Your task to perform on an android device: read, delete, or share a saved page in the chrome app Image 0: 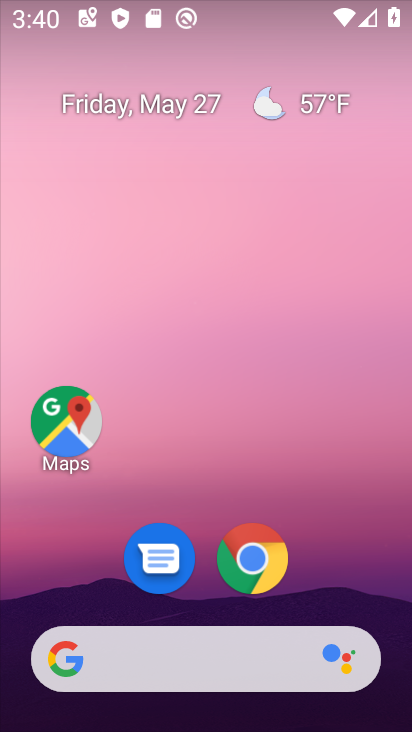
Step 0: click (259, 573)
Your task to perform on an android device: read, delete, or share a saved page in the chrome app Image 1: 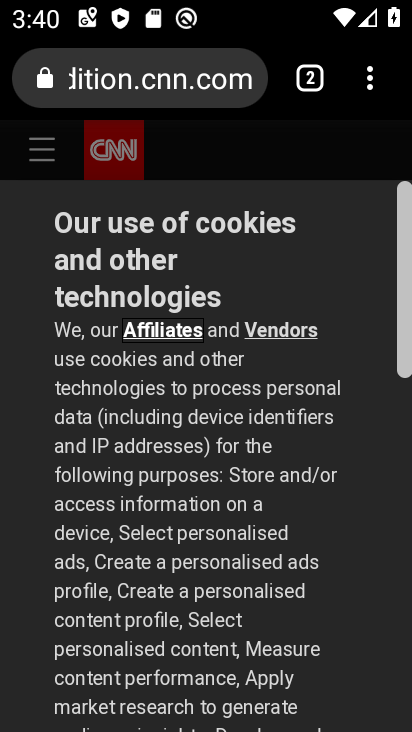
Step 1: click (378, 66)
Your task to perform on an android device: read, delete, or share a saved page in the chrome app Image 2: 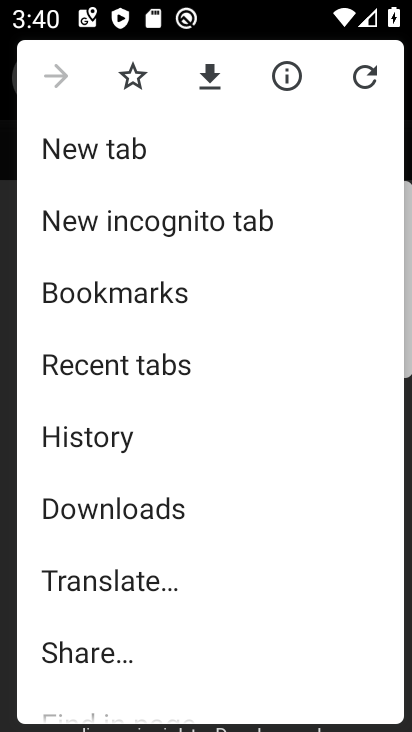
Step 2: click (120, 508)
Your task to perform on an android device: read, delete, or share a saved page in the chrome app Image 3: 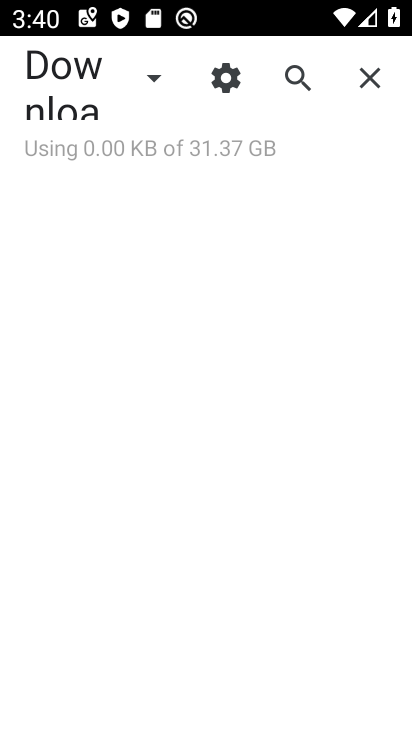
Step 3: task complete